Your task to perform on an android device: Go to settings Image 0: 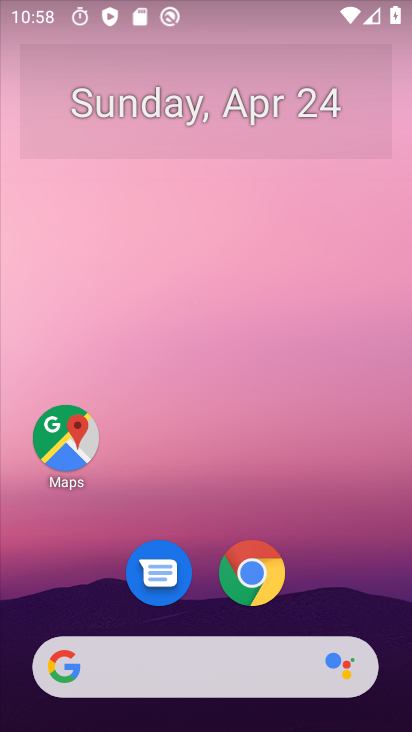
Step 0: drag from (223, 720) to (225, 67)
Your task to perform on an android device: Go to settings Image 1: 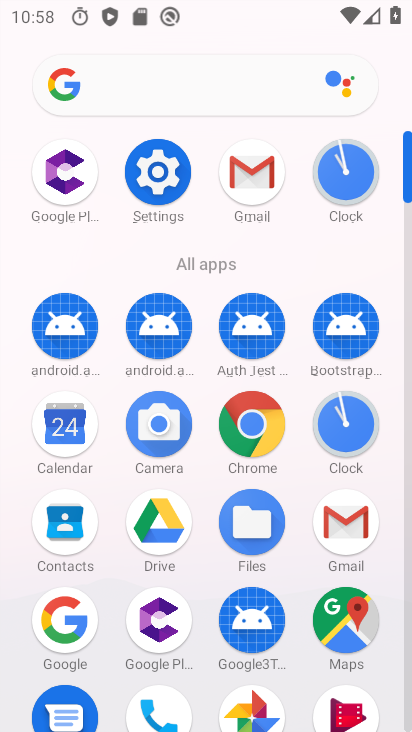
Step 1: click (162, 169)
Your task to perform on an android device: Go to settings Image 2: 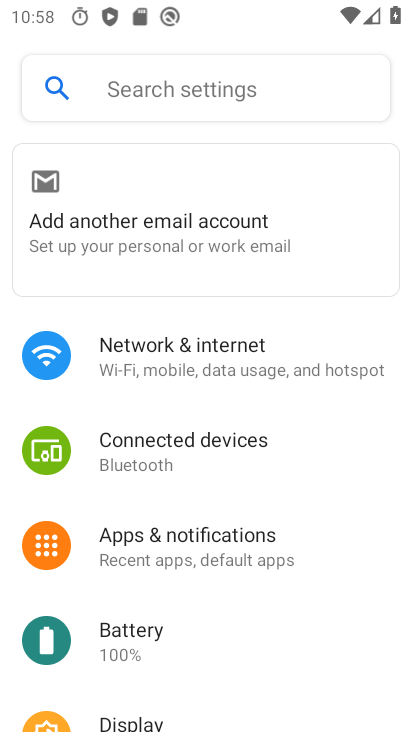
Step 2: task complete